Your task to perform on an android device: Go to internet settings Image 0: 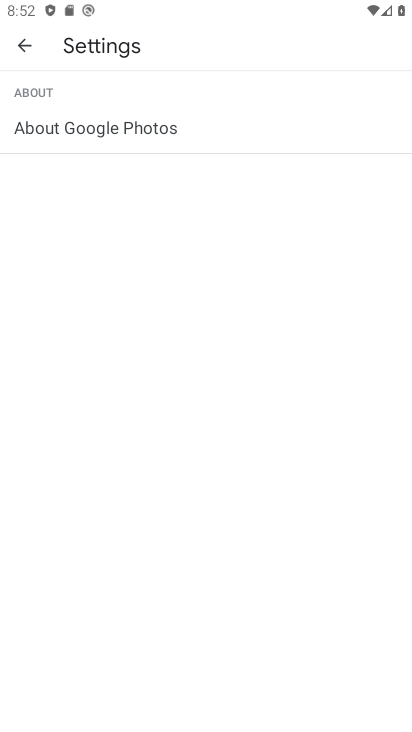
Step 0: press back button
Your task to perform on an android device: Go to internet settings Image 1: 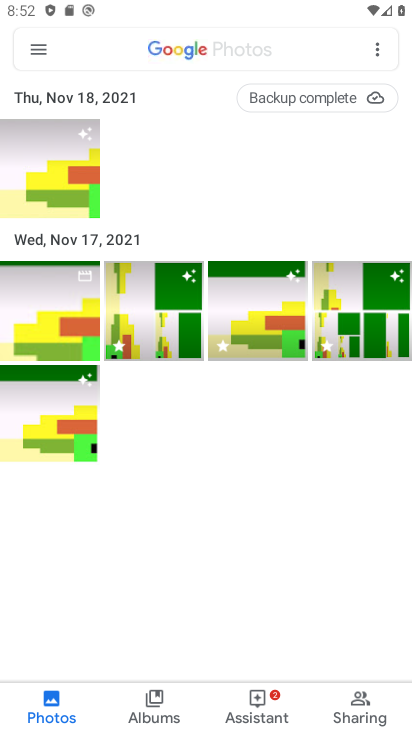
Step 1: press back button
Your task to perform on an android device: Go to internet settings Image 2: 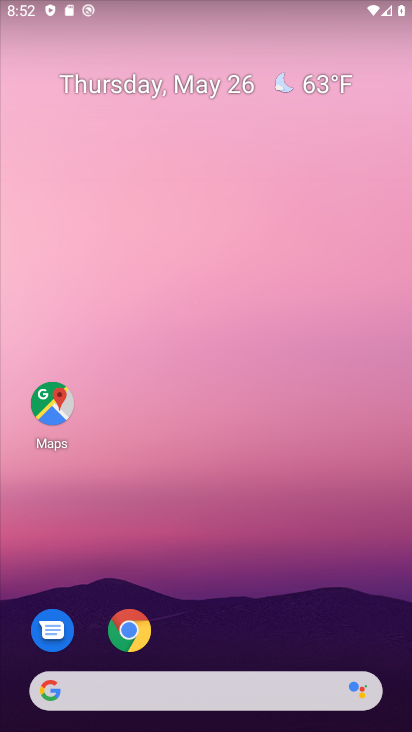
Step 2: drag from (253, 526) to (198, 107)
Your task to perform on an android device: Go to internet settings Image 3: 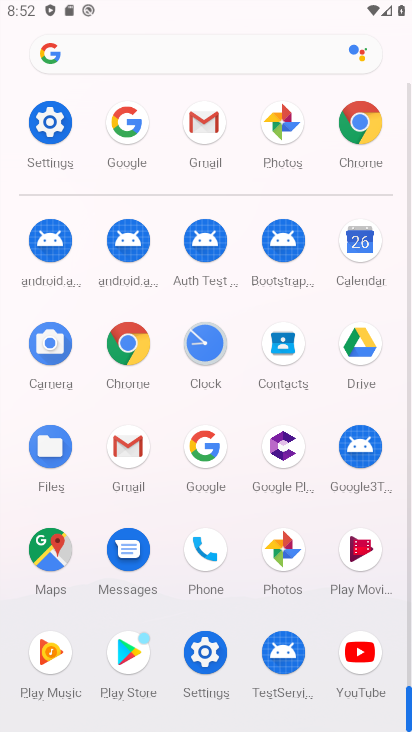
Step 3: click (39, 116)
Your task to perform on an android device: Go to internet settings Image 4: 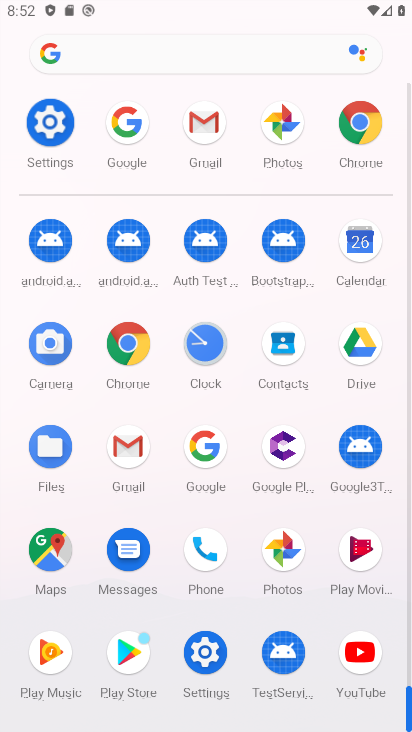
Step 4: click (39, 116)
Your task to perform on an android device: Go to internet settings Image 5: 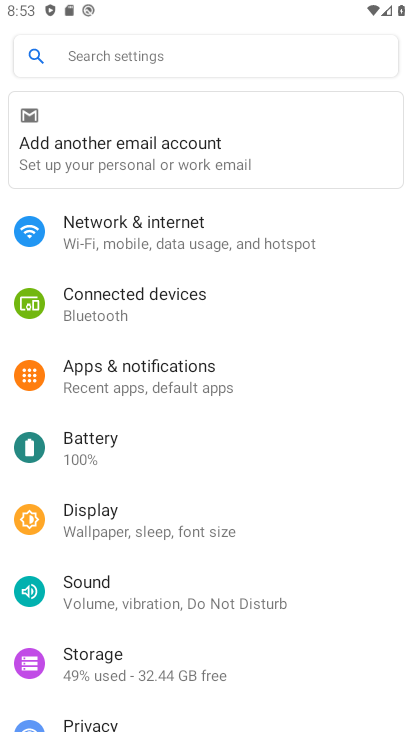
Step 5: click (117, 225)
Your task to perform on an android device: Go to internet settings Image 6: 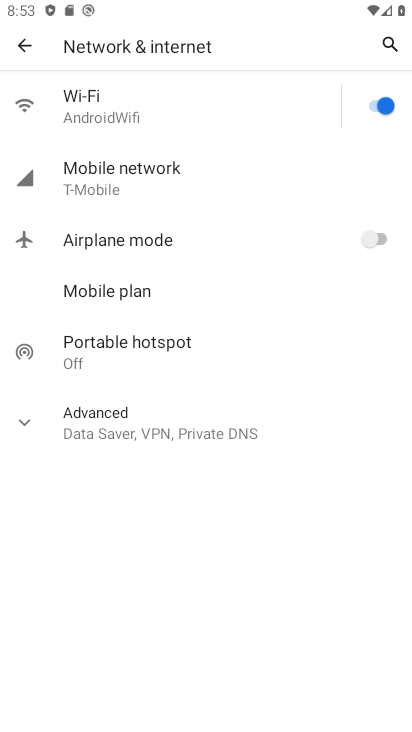
Step 6: task complete